Your task to perform on an android device: Is it going to rain tomorrow? Image 0: 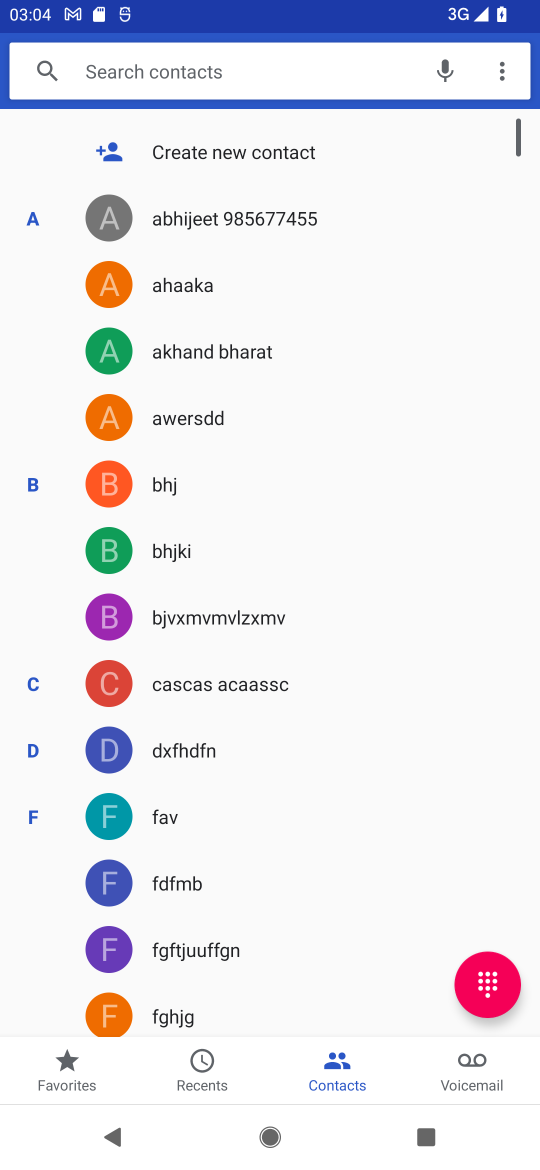
Step 0: press home button
Your task to perform on an android device: Is it going to rain tomorrow? Image 1: 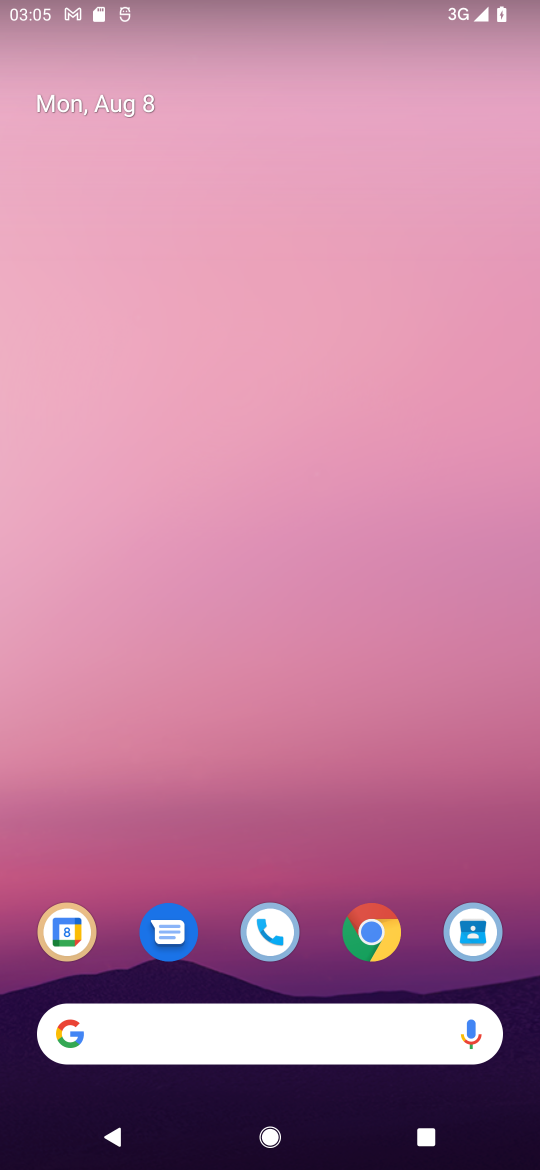
Step 1: drag from (326, 945) to (285, 2)
Your task to perform on an android device: Is it going to rain tomorrow? Image 2: 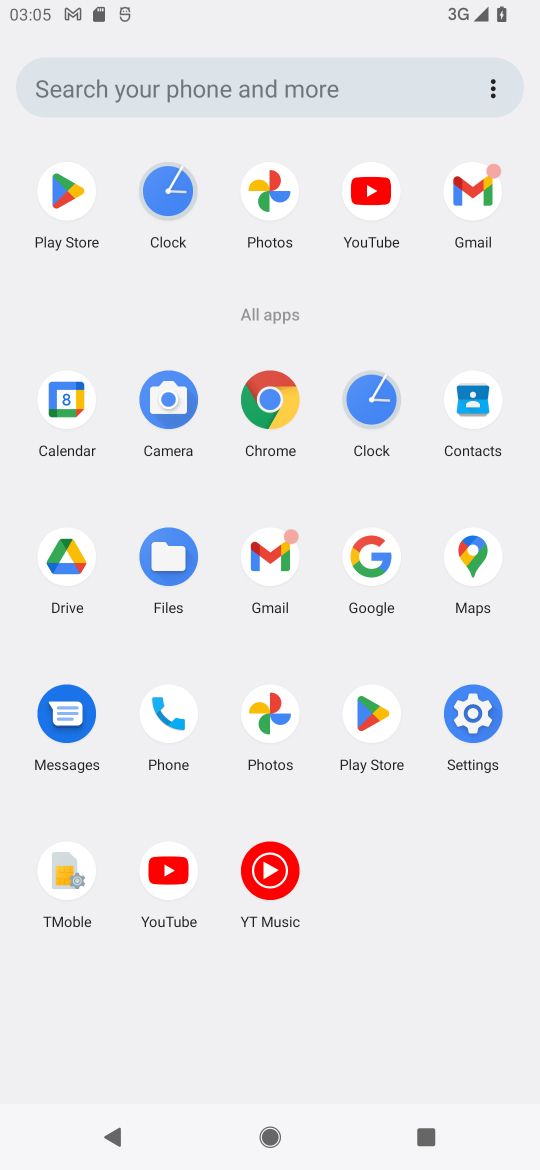
Step 2: click (376, 586)
Your task to perform on an android device: Is it going to rain tomorrow? Image 3: 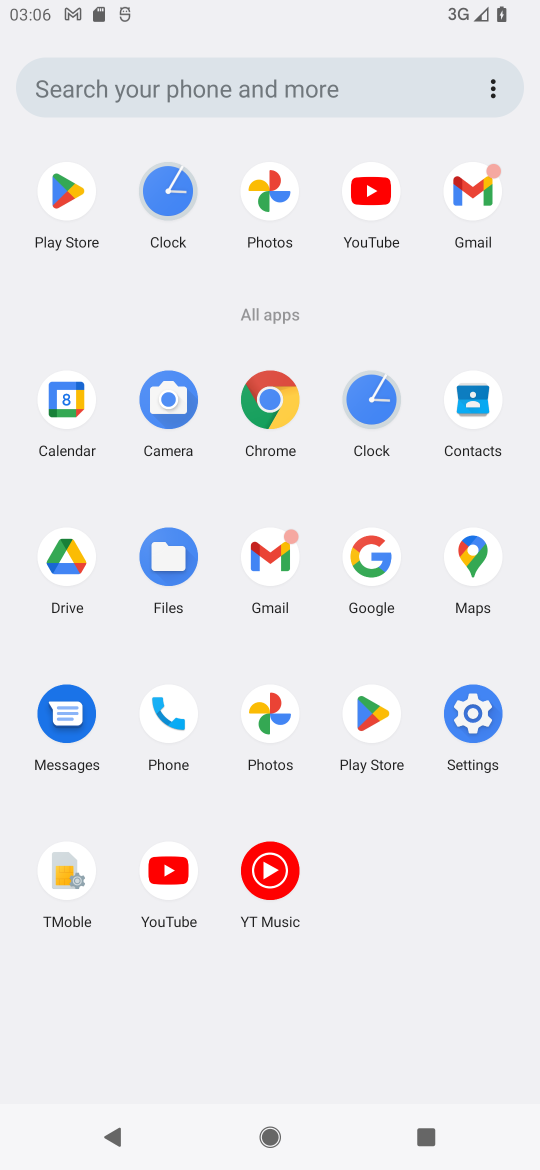
Step 3: click (369, 540)
Your task to perform on an android device: Is it going to rain tomorrow? Image 4: 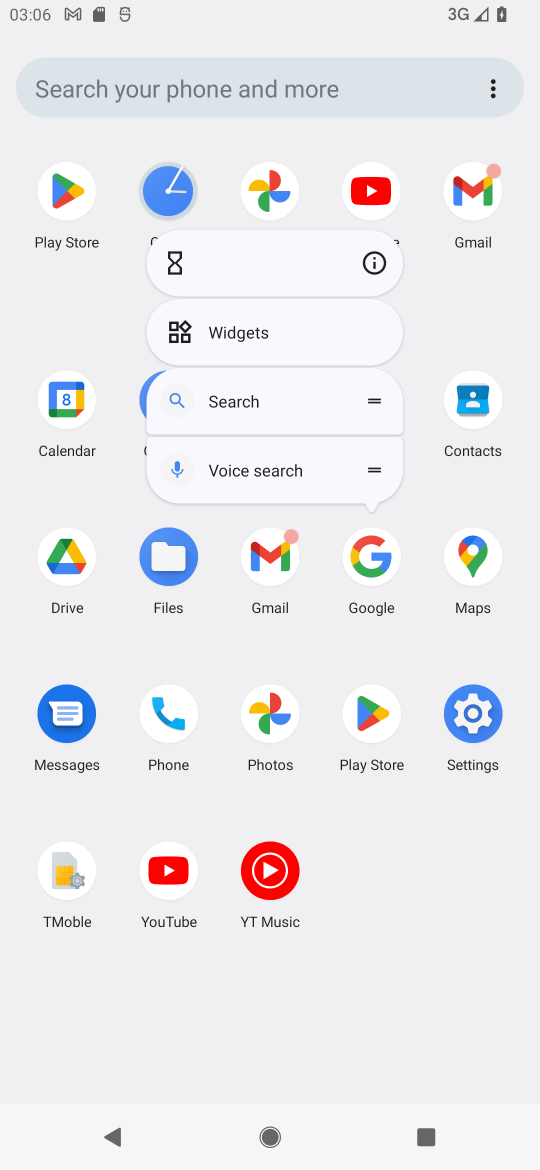
Step 4: click (370, 548)
Your task to perform on an android device: Is it going to rain tomorrow? Image 5: 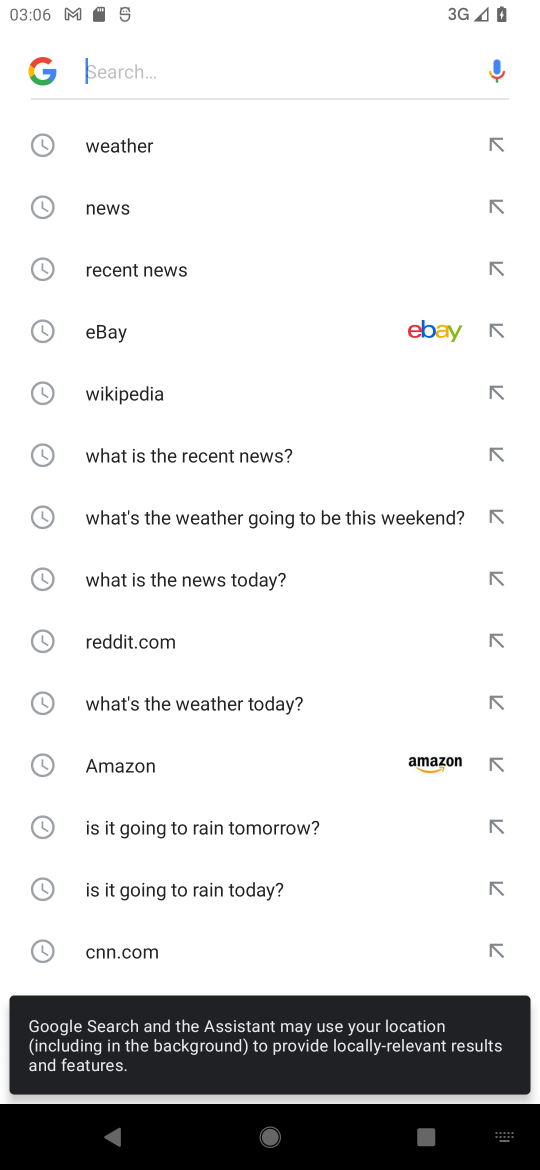
Step 5: click (106, 133)
Your task to perform on an android device: Is it going to rain tomorrow? Image 6: 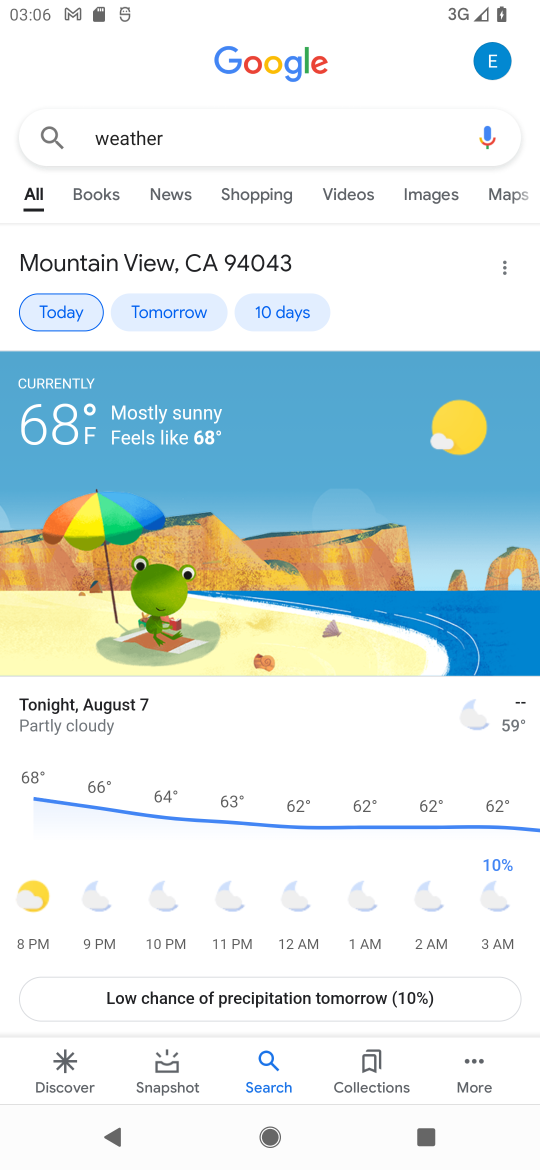
Step 6: task complete